Your task to perform on an android device: remove spam from my inbox in the gmail app Image 0: 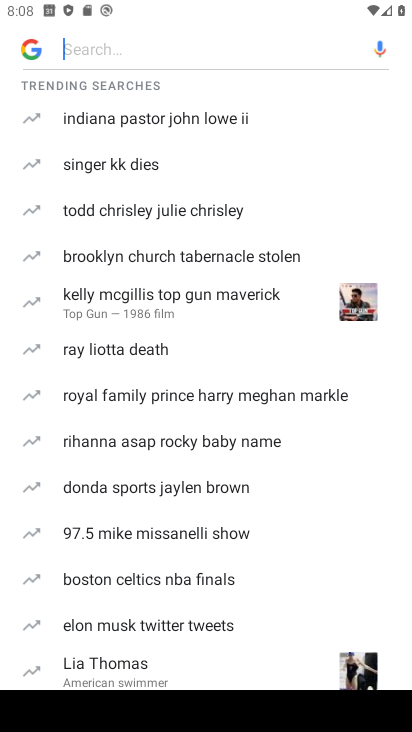
Step 0: press home button
Your task to perform on an android device: remove spam from my inbox in the gmail app Image 1: 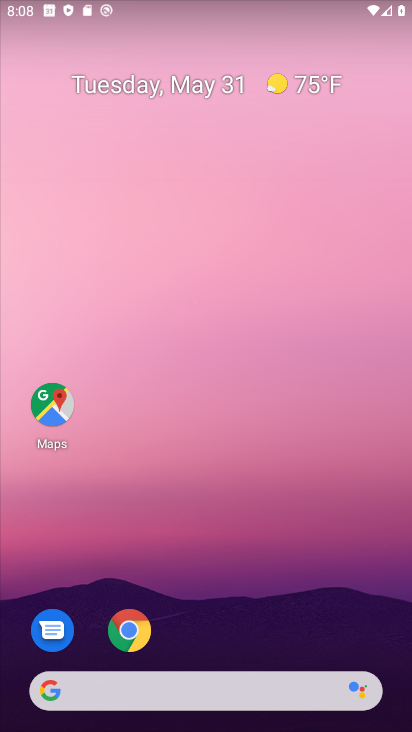
Step 1: drag from (228, 579) to (206, 187)
Your task to perform on an android device: remove spam from my inbox in the gmail app Image 2: 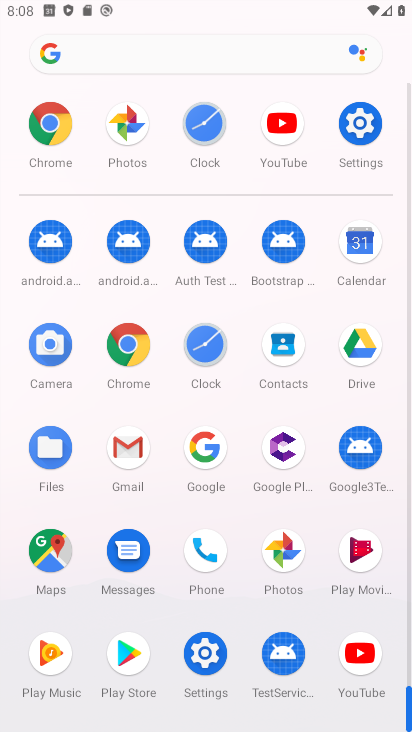
Step 2: click (136, 463)
Your task to perform on an android device: remove spam from my inbox in the gmail app Image 3: 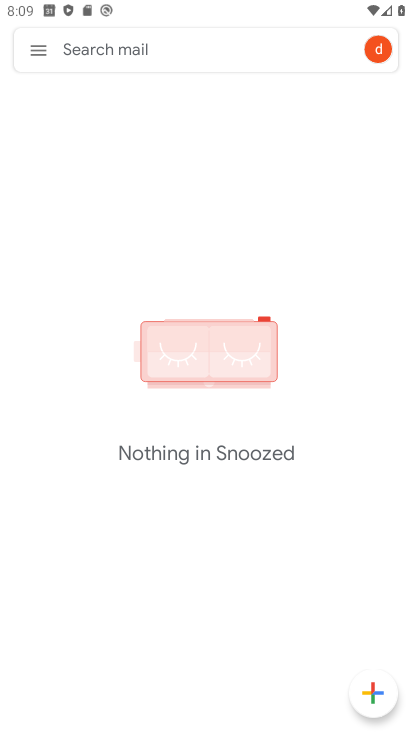
Step 3: click (33, 45)
Your task to perform on an android device: remove spam from my inbox in the gmail app Image 4: 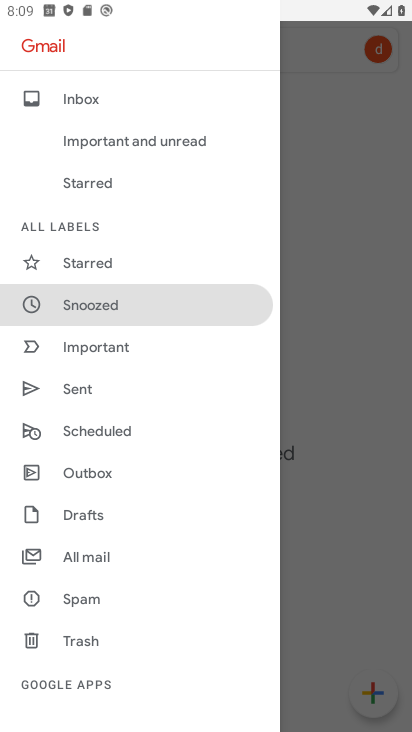
Step 4: click (79, 607)
Your task to perform on an android device: remove spam from my inbox in the gmail app Image 5: 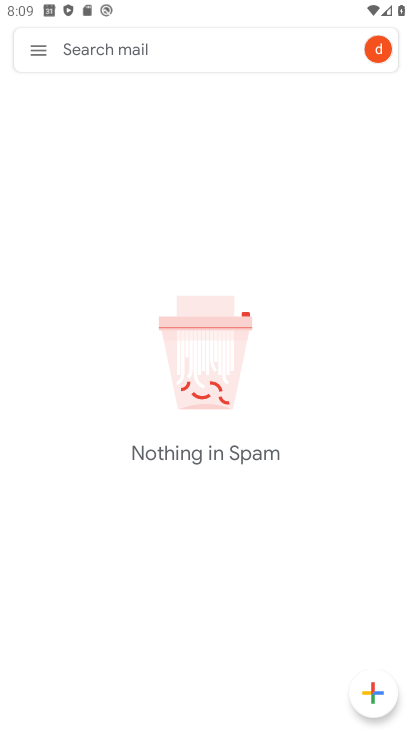
Step 5: task complete